Your task to perform on an android device: Open notification settings Image 0: 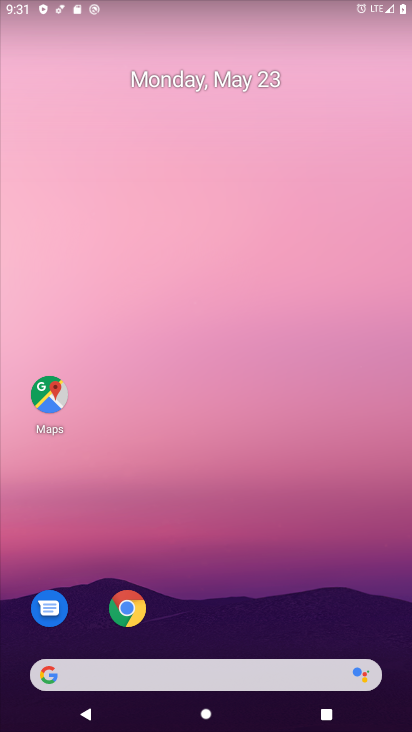
Step 0: drag from (280, 605) to (175, 90)
Your task to perform on an android device: Open notification settings Image 1: 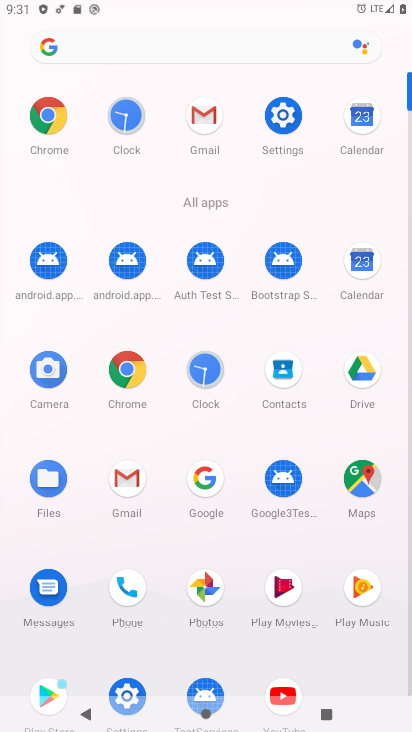
Step 1: click (289, 114)
Your task to perform on an android device: Open notification settings Image 2: 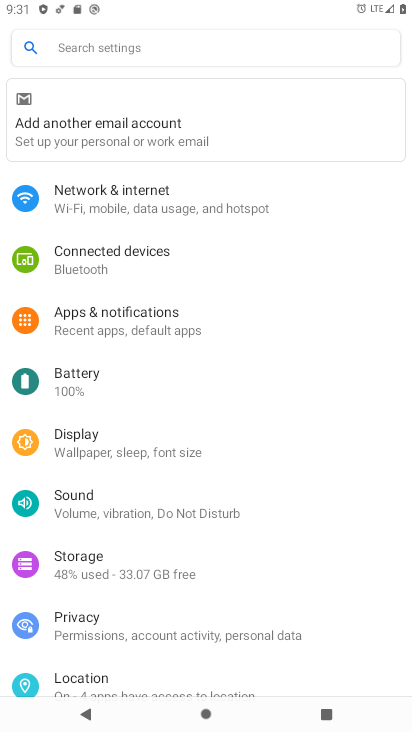
Step 2: click (186, 315)
Your task to perform on an android device: Open notification settings Image 3: 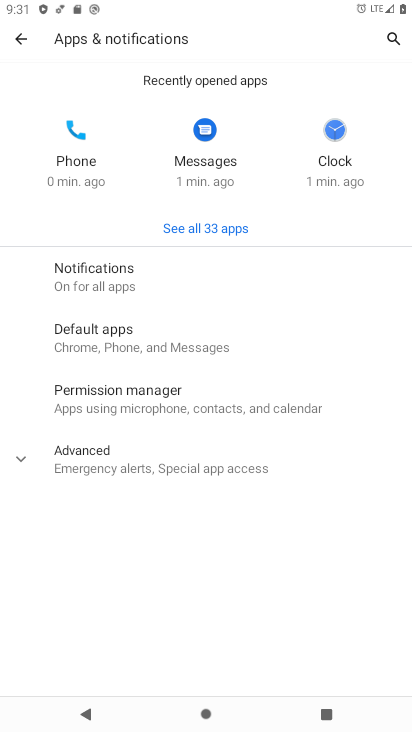
Step 3: click (165, 288)
Your task to perform on an android device: Open notification settings Image 4: 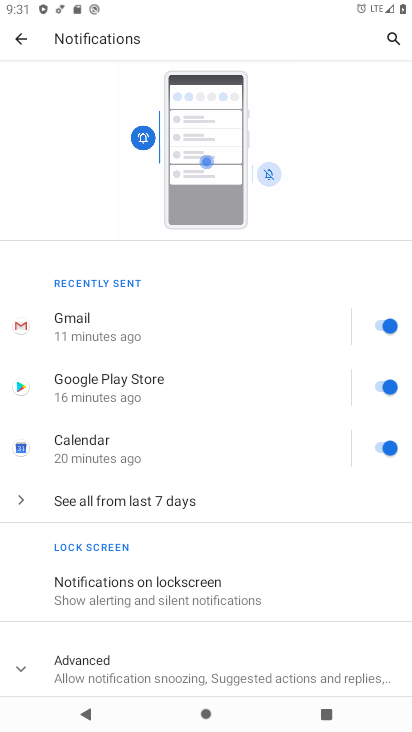
Step 4: task complete